Your task to perform on an android device: Go to Wikipedia Image 0: 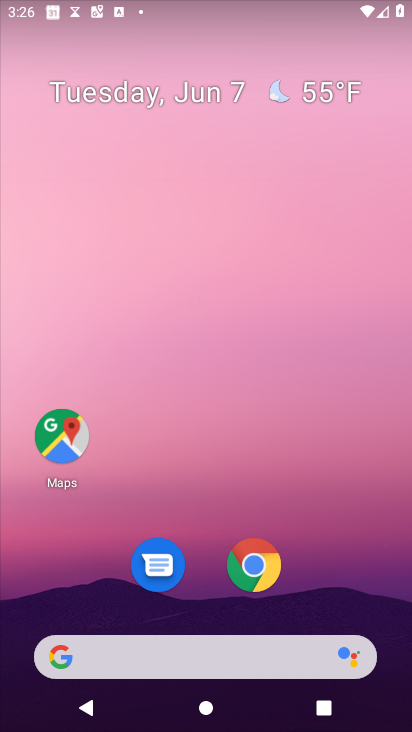
Step 0: drag from (327, 574) to (306, 5)
Your task to perform on an android device: Go to Wikipedia Image 1: 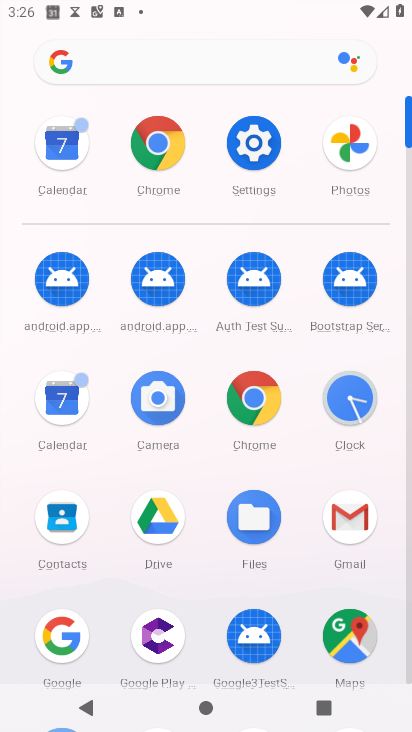
Step 1: click (265, 400)
Your task to perform on an android device: Go to Wikipedia Image 2: 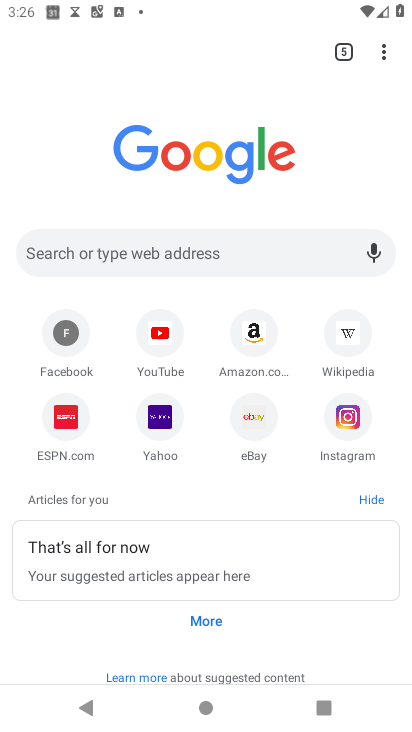
Step 2: click (342, 344)
Your task to perform on an android device: Go to Wikipedia Image 3: 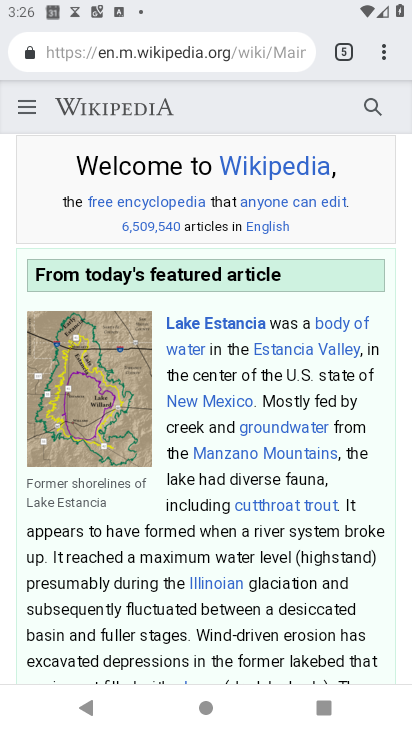
Step 3: task complete